Your task to perform on an android device: make emails show in primary in the gmail app Image 0: 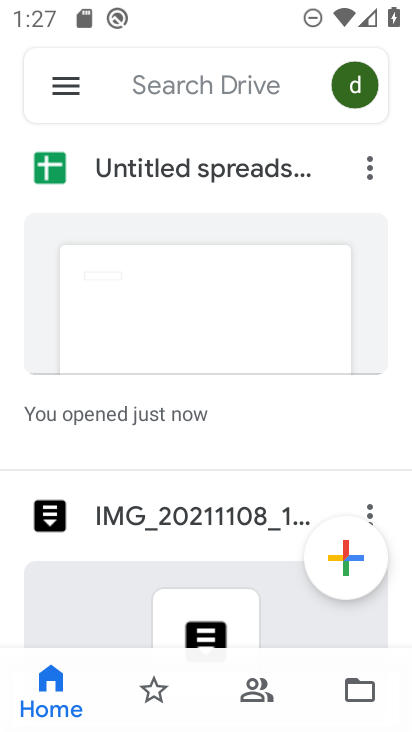
Step 0: press home button
Your task to perform on an android device: make emails show in primary in the gmail app Image 1: 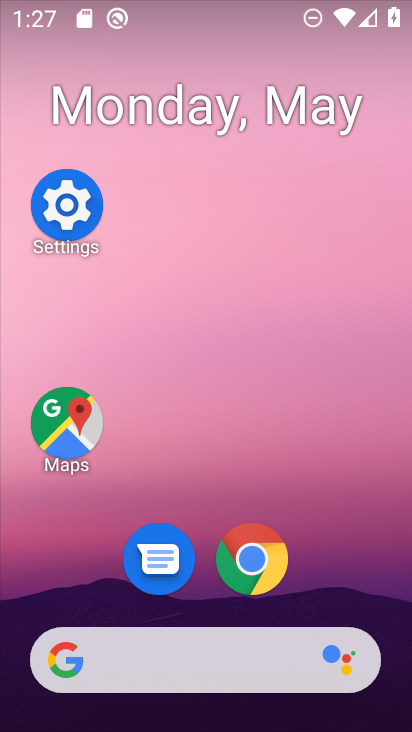
Step 1: drag from (338, 608) to (371, 183)
Your task to perform on an android device: make emails show in primary in the gmail app Image 2: 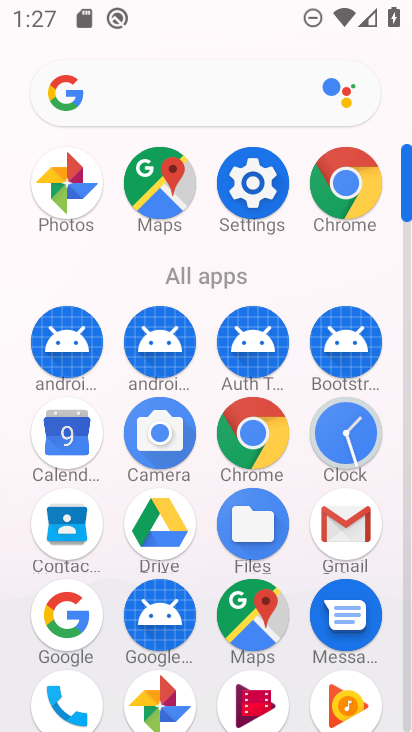
Step 2: drag from (345, 532) to (123, 325)
Your task to perform on an android device: make emails show in primary in the gmail app Image 3: 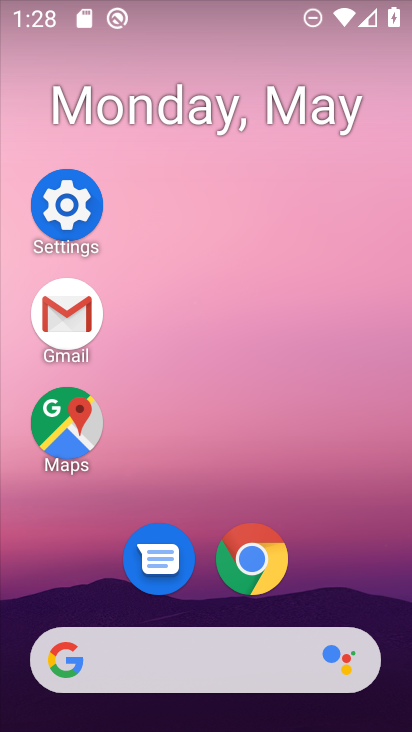
Step 3: click (76, 308)
Your task to perform on an android device: make emails show in primary in the gmail app Image 4: 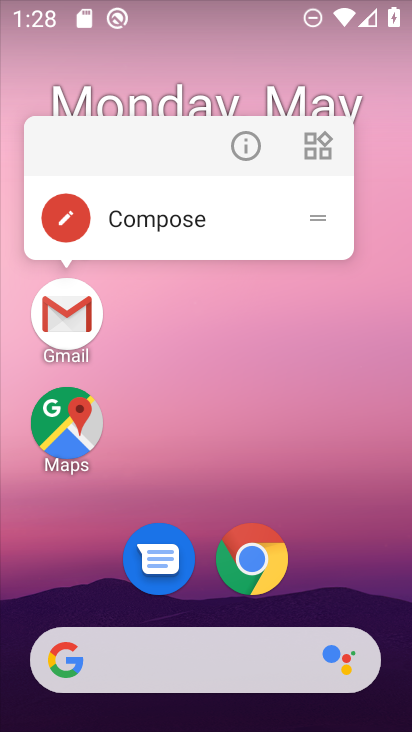
Step 4: click (88, 302)
Your task to perform on an android device: make emails show in primary in the gmail app Image 5: 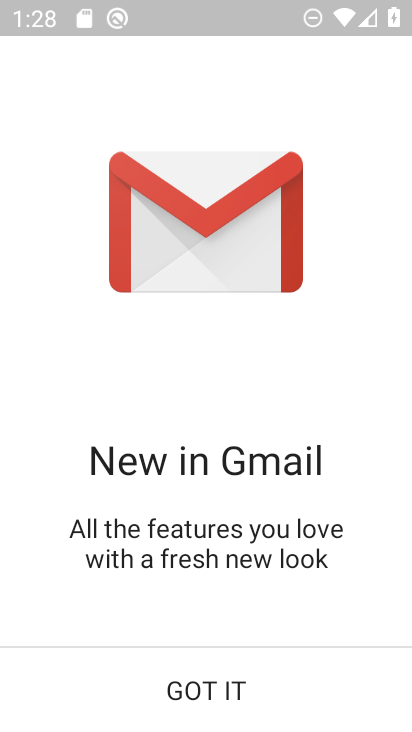
Step 5: click (167, 705)
Your task to perform on an android device: make emails show in primary in the gmail app Image 6: 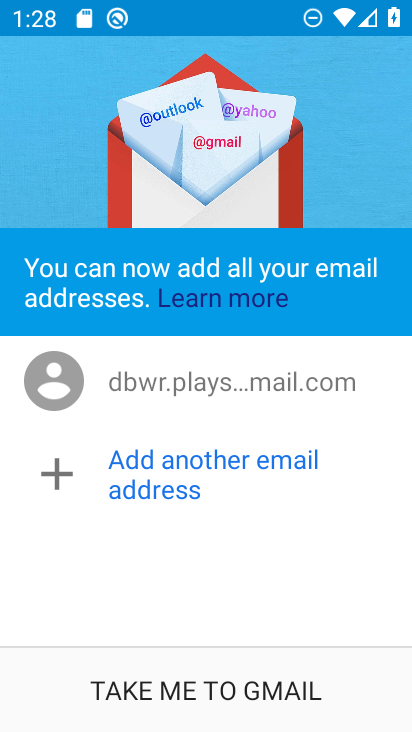
Step 6: click (221, 689)
Your task to perform on an android device: make emails show in primary in the gmail app Image 7: 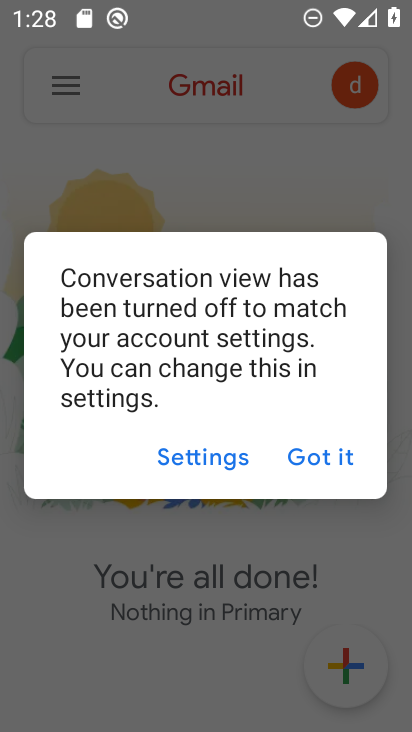
Step 7: click (333, 464)
Your task to perform on an android device: make emails show in primary in the gmail app Image 8: 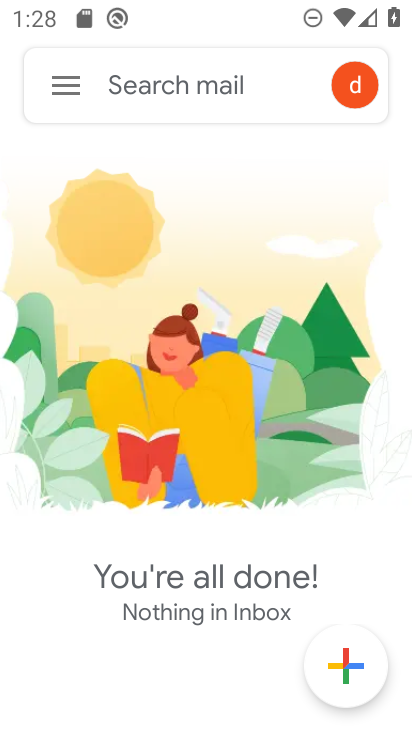
Step 8: click (58, 89)
Your task to perform on an android device: make emails show in primary in the gmail app Image 9: 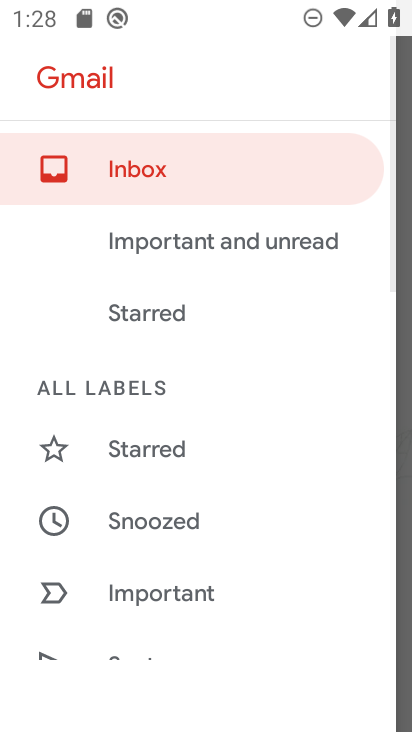
Step 9: drag from (285, 593) to (241, 235)
Your task to perform on an android device: make emails show in primary in the gmail app Image 10: 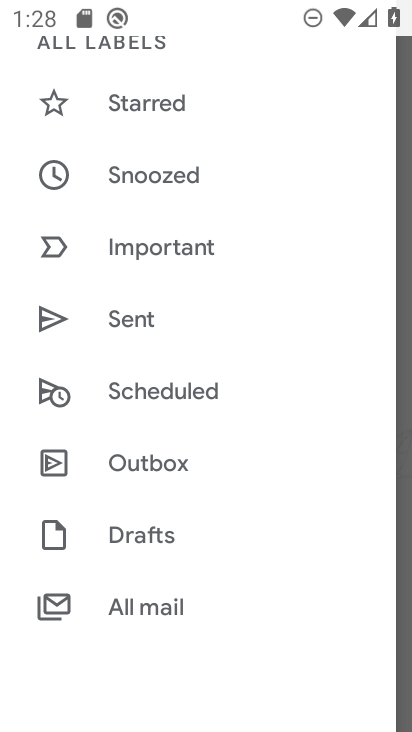
Step 10: drag from (299, 553) to (246, 268)
Your task to perform on an android device: make emails show in primary in the gmail app Image 11: 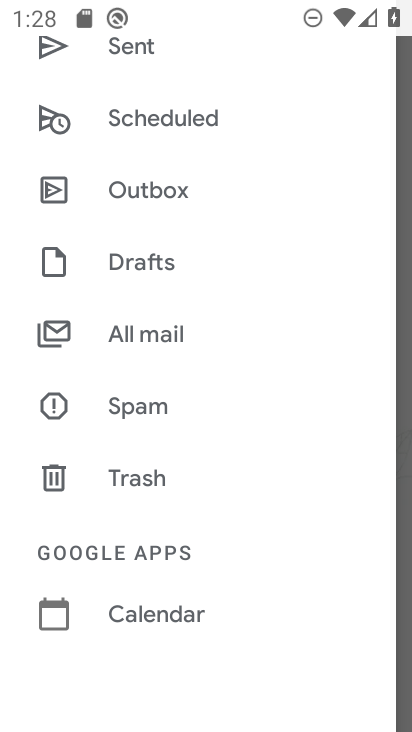
Step 11: drag from (236, 480) to (202, 198)
Your task to perform on an android device: make emails show in primary in the gmail app Image 12: 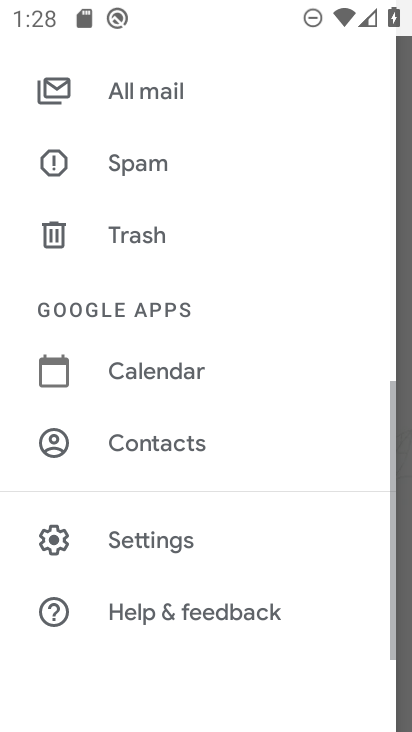
Step 12: click (172, 543)
Your task to perform on an android device: make emails show in primary in the gmail app Image 13: 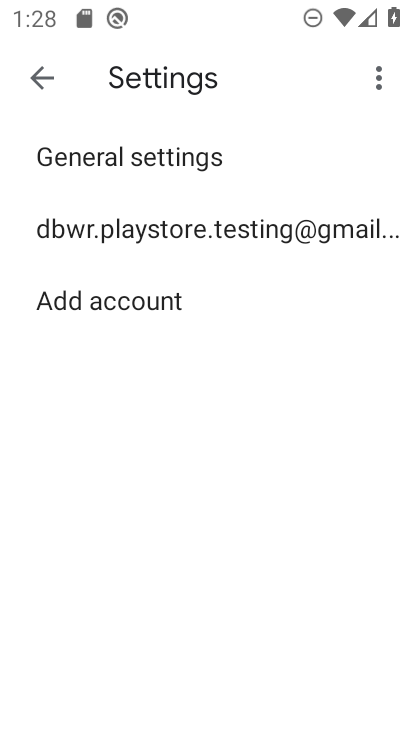
Step 13: click (206, 217)
Your task to perform on an android device: make emails show in primary in the gmail app Image 14: 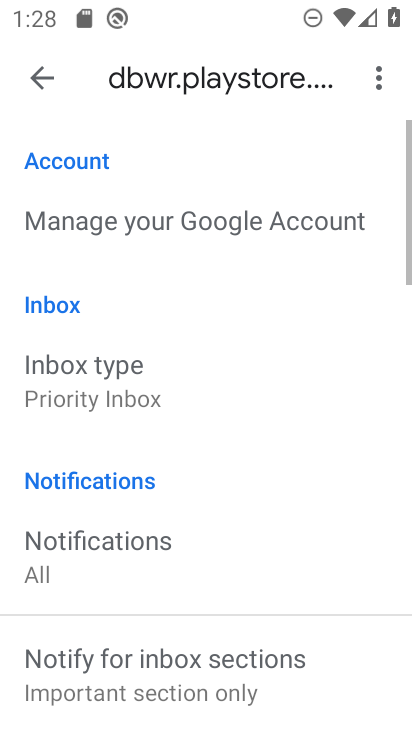
Step 14: click (172, 393)
Your task to perform on an android device: make emails show in primary in the gmail app Image 15: 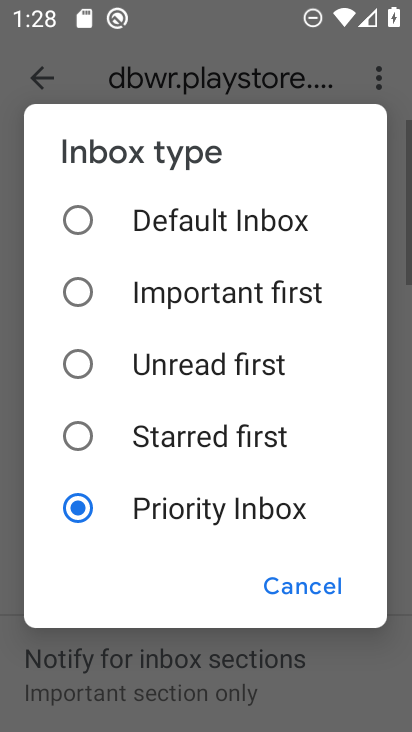
Step 15: click (203, 223)
Your task to perform on an android device: make emails show in primary in the gmail app Image 16: 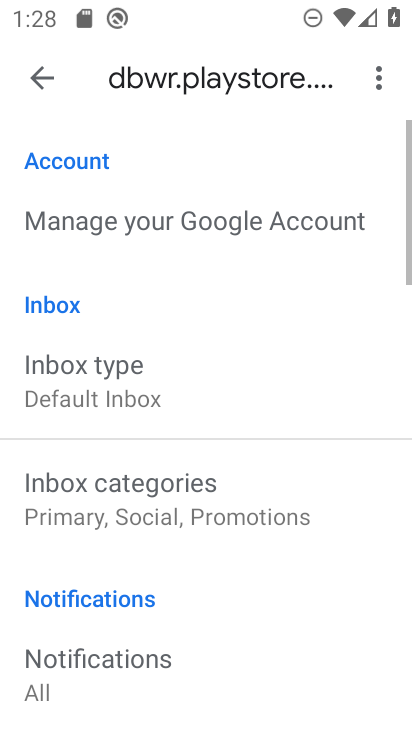
Step 16: click (153, 470)
Your task to perform on an android device: make emails show in primary in the gmail app Image 17: 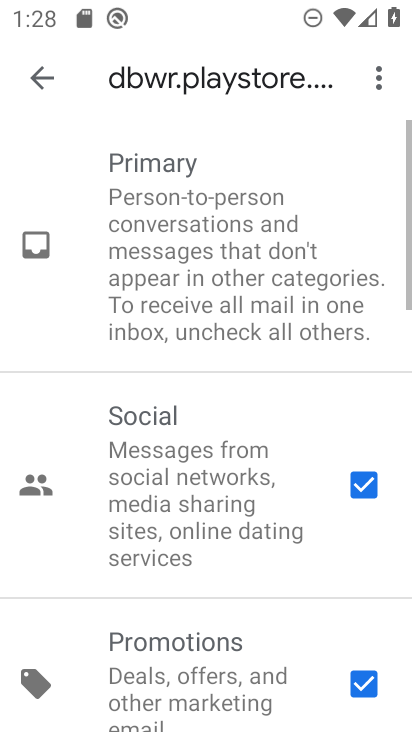
Step 17: click (353, 469)
Your task to perform on an android device: make emails show in primary in the gmail app Image 18: 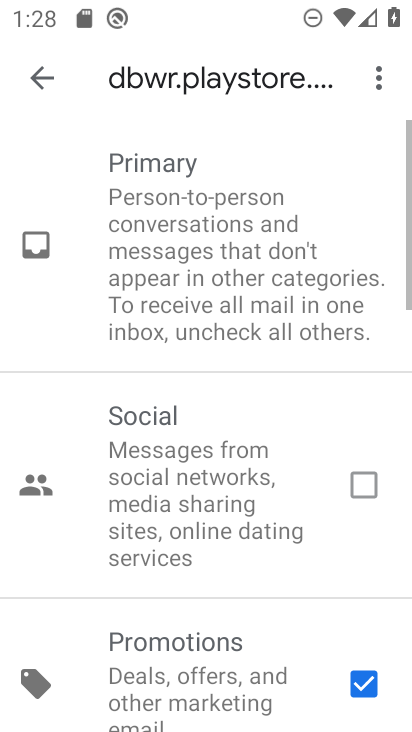
Step 18: click (361, 691)
Your task to perform on an android device: make emails show in primary in the gmail app Image 19: 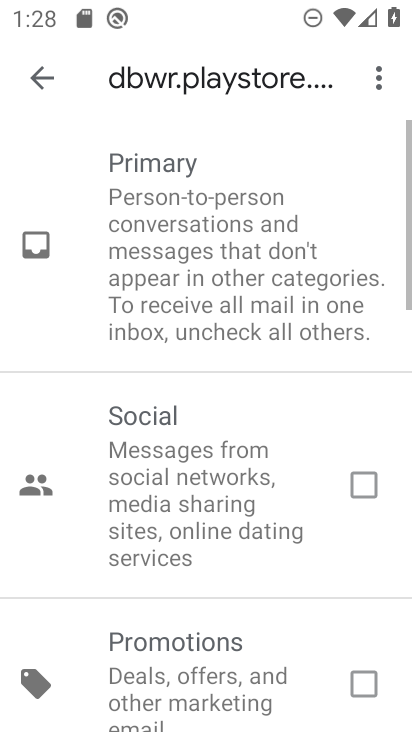
Step 19: task complete